Your task to perform on an android device: change text size in settings app Image 0: 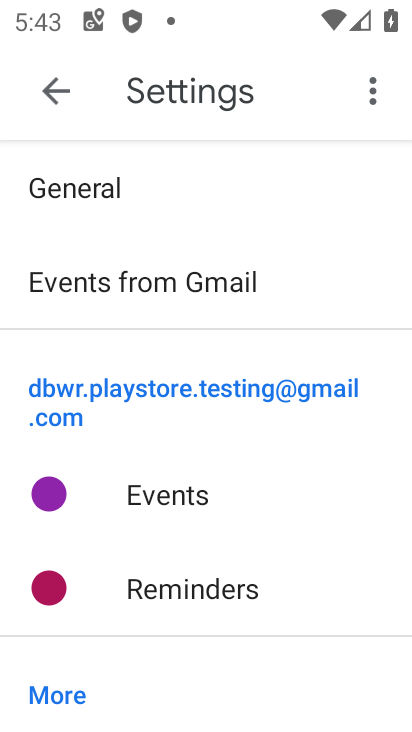
Step 0: press home button
Your task to perform on an android device: change text size in settings app Image 1: 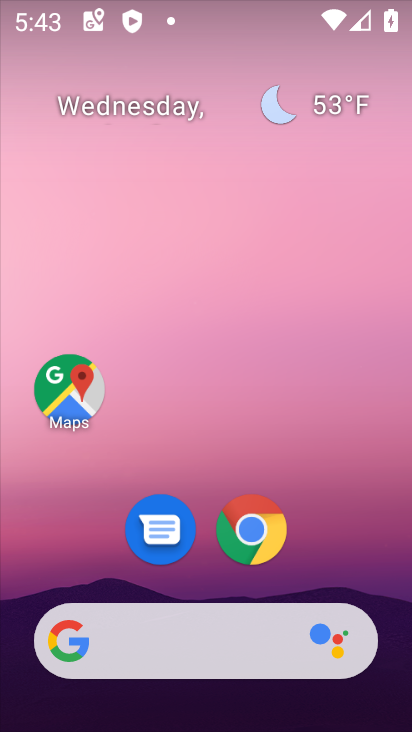
Step 1: drag from (299, 580) to (268, 203)
Your task to perform on an android device: change text size in settings app Image 2: 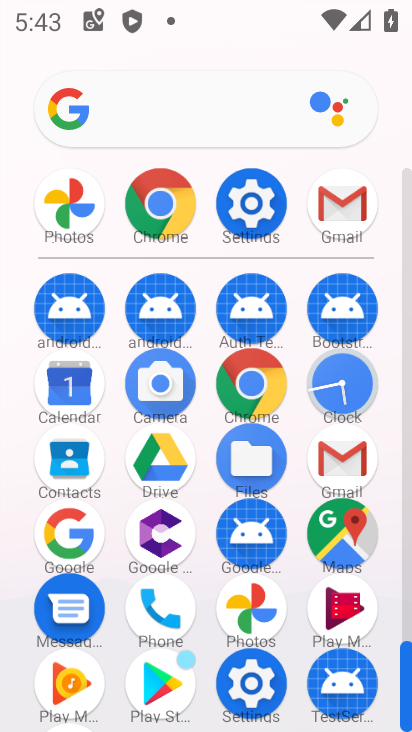
Step 2: click (238, 197)
Your task to perform on an android device: change text size in settings app Image 3: 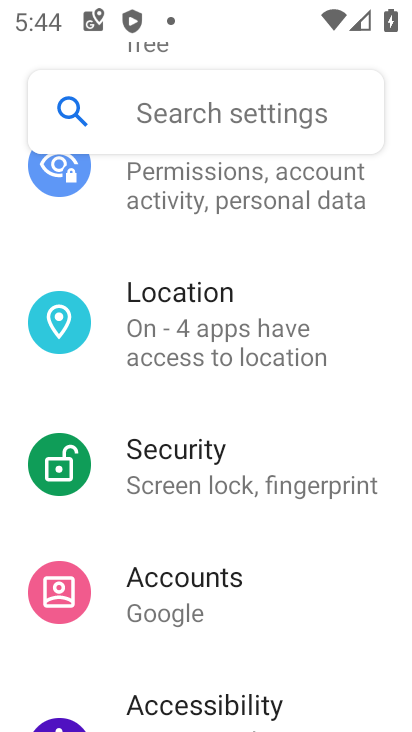
Step 3: drag from (228, 620) to (227, 357)
Your task to perform on an android device: change text size in settings app Image 4: 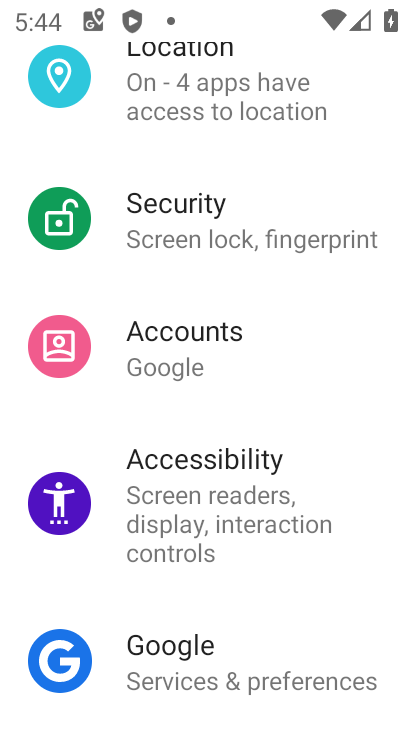
Step 4: drag from (230, 615) to (226, 353)
Your task to perform on an android device: change text size in settings app Image 5: 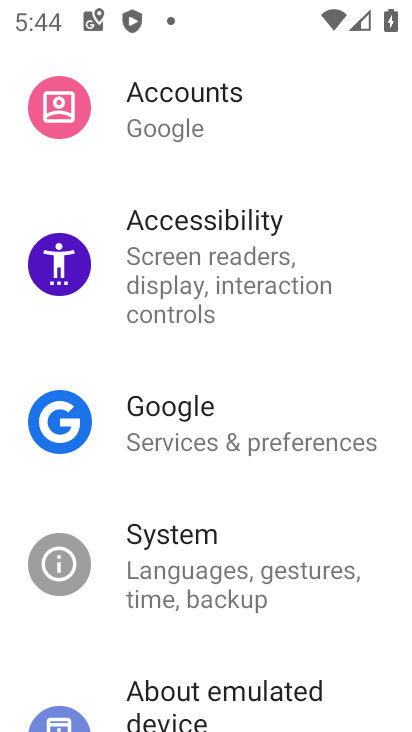
Step 5: drag from (224, 276) to (215, 556)
Your task to perform on an android device: change text size in settings app Image 6: 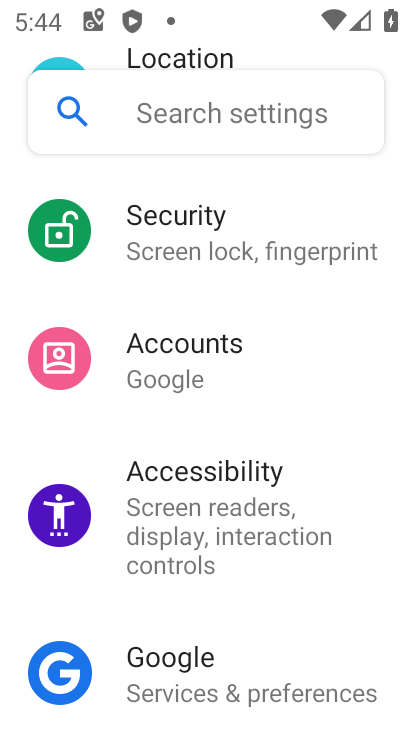
Step 6: drag from (260, 324) to (239, 578)
Your task to perform on an android device: change text size in settings app Image 7: 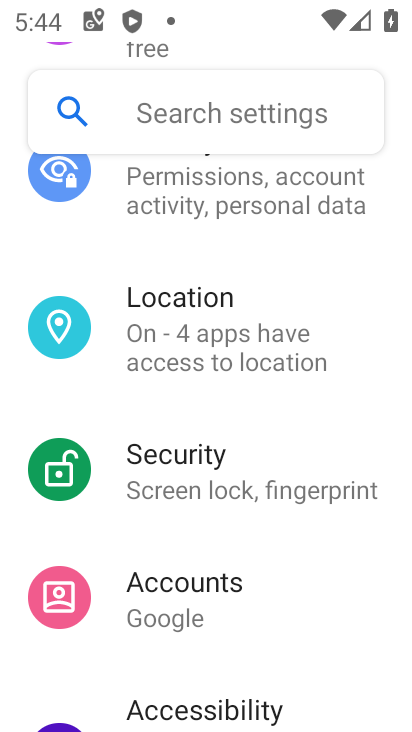
Step 7: drag from (238, 314) to (220, 582)
Your task to perform on an android device: change text size in settings app Image 8: 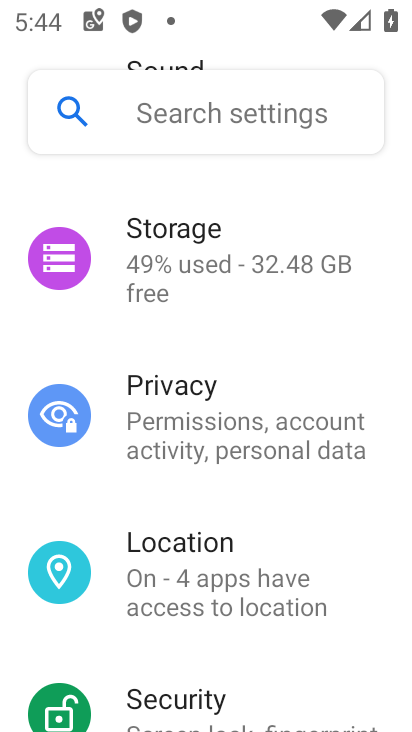
Step 8: drag from (264, 373) to (264, 687)
Your task to perform on an android device: change text size in settings app Image 9: 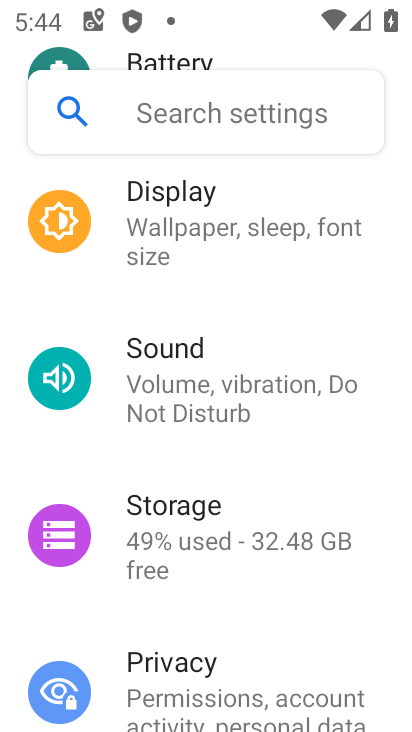
Step 9: click (156, 226)
Your task to perform on an android device: change text size in settings app Image 10: 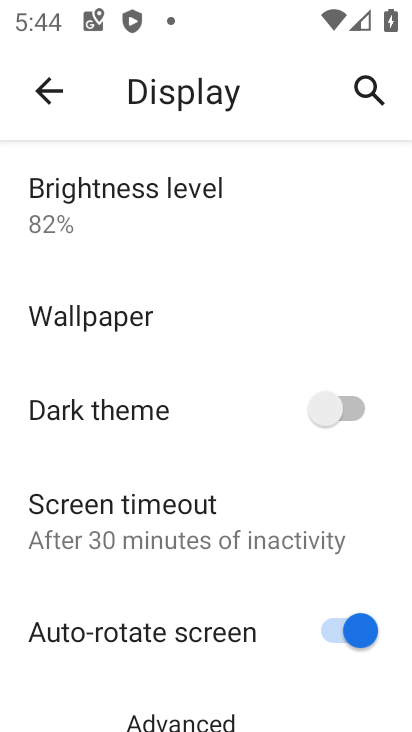
Step 10: drag from (252, 672) to (248, 430)
Your task to perform on an android device: change text size in settings app Image 11: 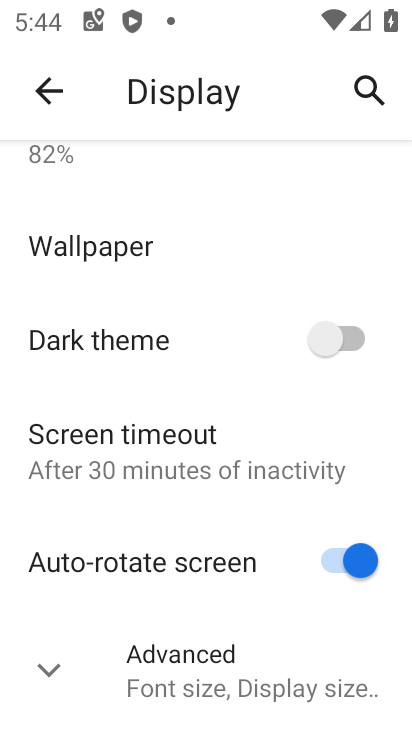
Step 11: click (243, 677)
Your task to perform on an android device: change text size in settings app Image 12: 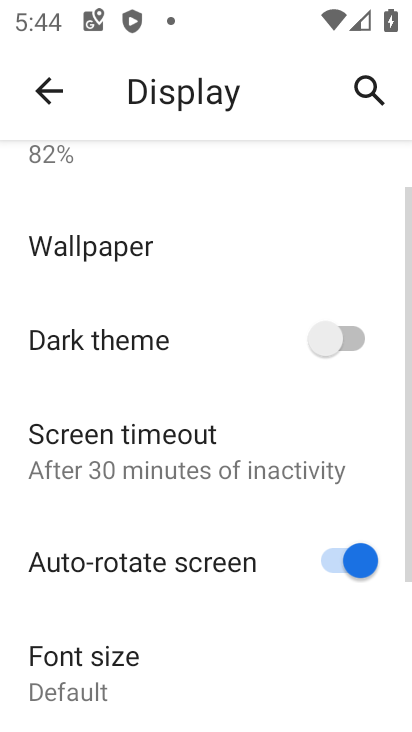
Step 12: drag from (243, 678) to (243, 545)
Your task to perform on an android device: change text size in settings app Image 13: 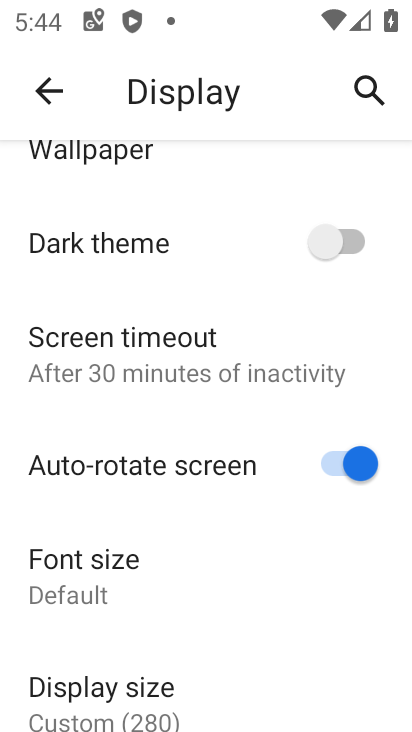
Step 13: click (105, 594)
Your task to perform on an android device: change text size in settings app Image 14: 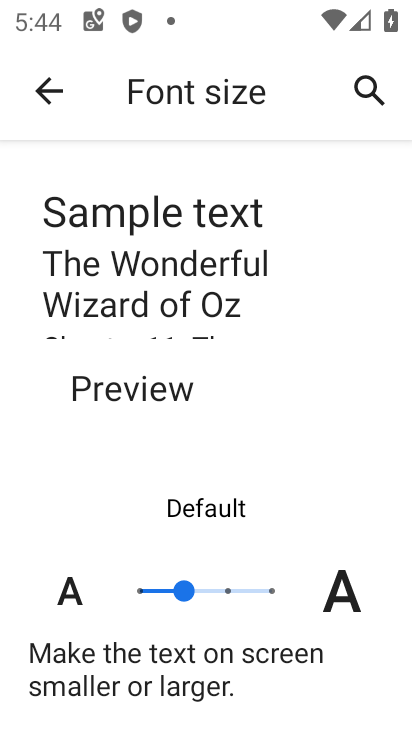
Step 14: click (219, 597)
Your task to perform on an android device: change text size in settings app Image 15: 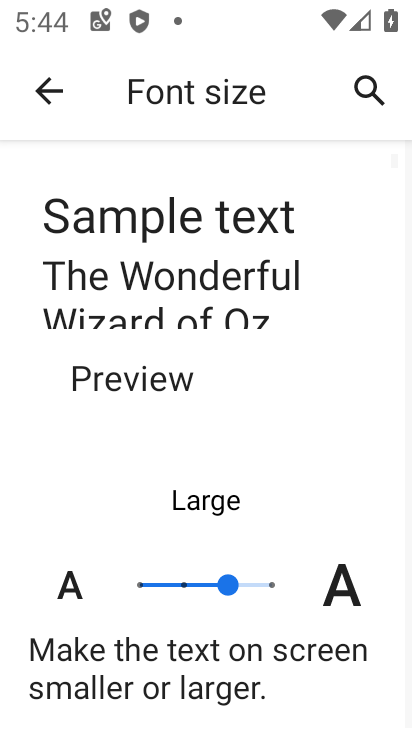
Step 15: task complete